Your task to perform on an android device: What's the weather going to be this weekend? Image 0: 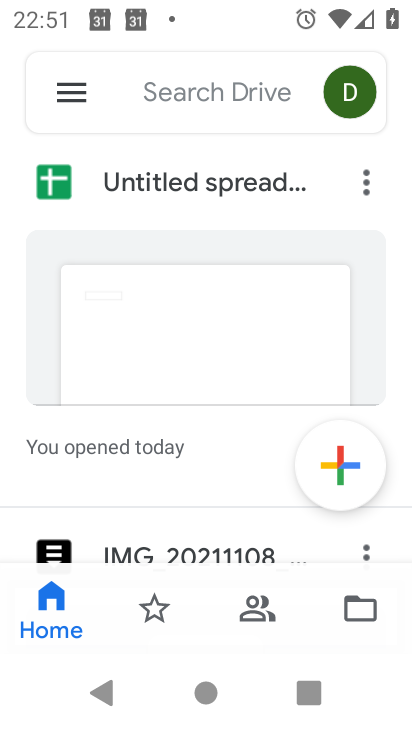
Step 0: press home button
Your task to perform on an android device: What's the weather going to be this weekend? Image 1: 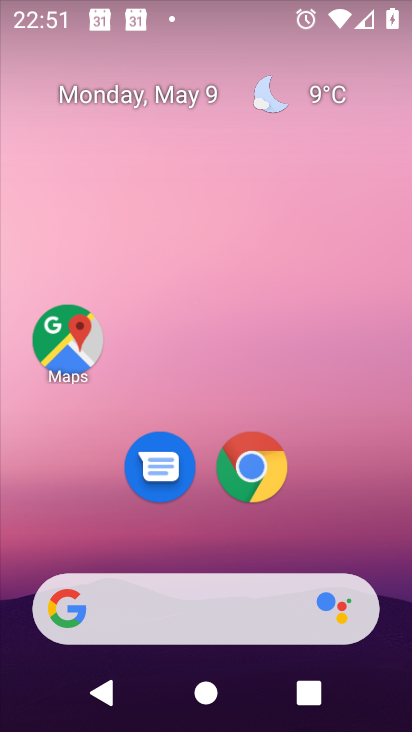
Step 1: drag from (353, 554) to (355, 629)
Your task to perform on an android device: What's the weather going to be this weekend? Image 2: 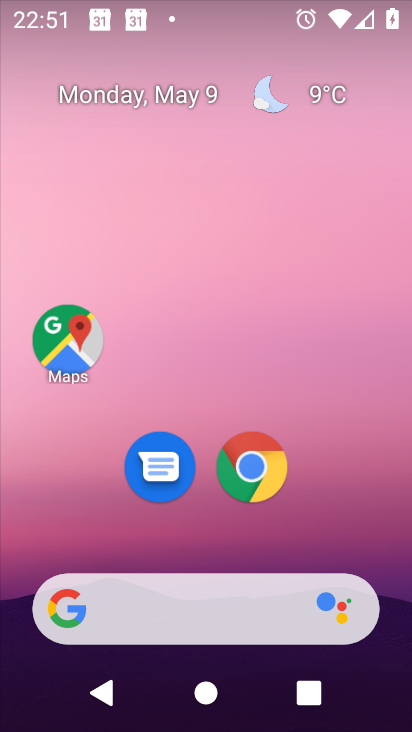
Step 2: click (336, 85)
Your task to perform on an android device: What's the weather going to be this weekend? Image 3: 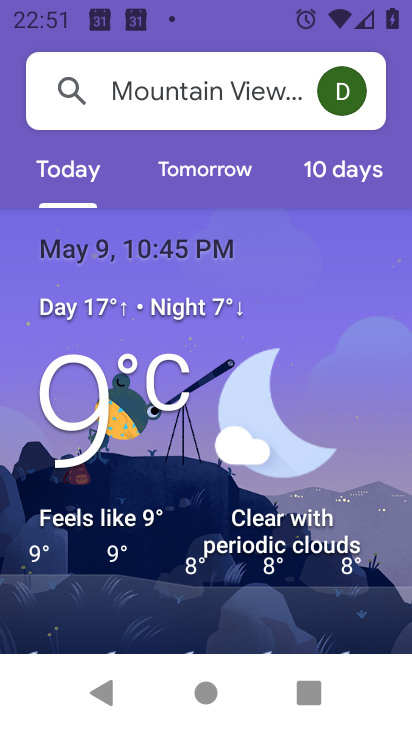
Step 3: click (354, 176)
Your task to perform on an android device: What's the weather going to be this weekend? Image 4: 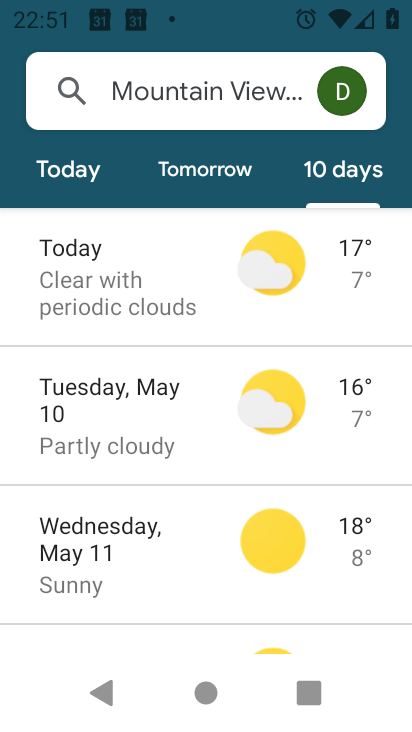
Step 4: task complete